Your task to perform on an android device: Show me popular games on the Play Store Image 0: 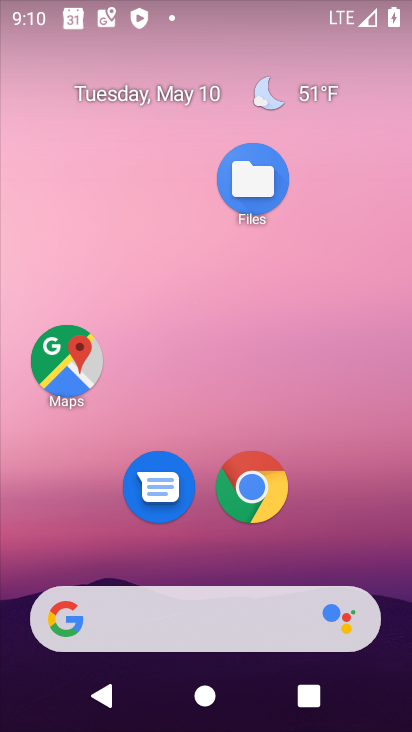
Step 0: drag from (205, 562) to (190, 173)
Your task to perform on an android device: Show me popular games on the Play Store Image 1: 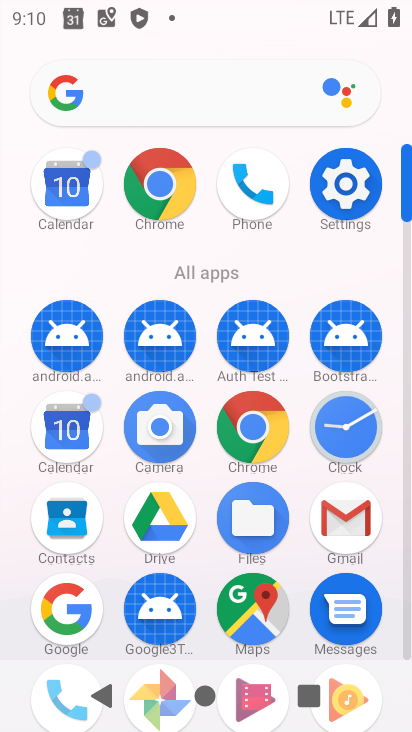
Step 1: drag from (108, 557) to (121, 220)
Your task to perform on an android device: Show me popular games on the Play Store Image 2: 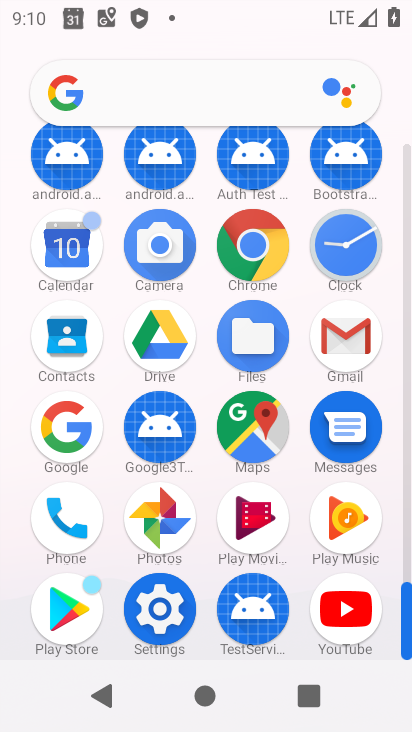
Step 2: click (65, 606)
Your task to perform on an android device: Show me popular games on the Play Store Image 3: 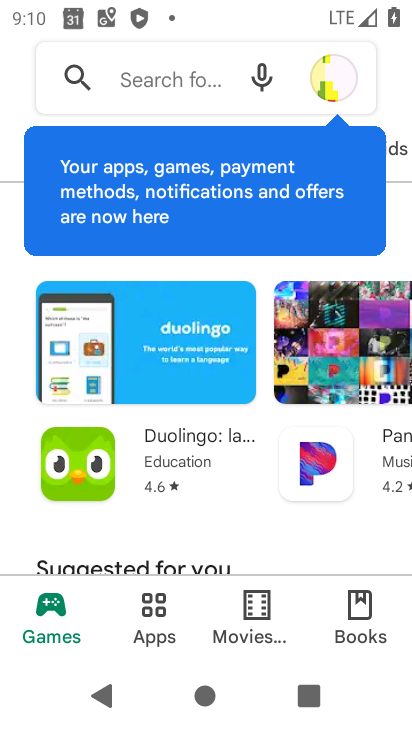
Step 3: drag from (223, 494) to (218, 25)
Your task to perform on an android device: Show me popular games on the Play Store Image 4: 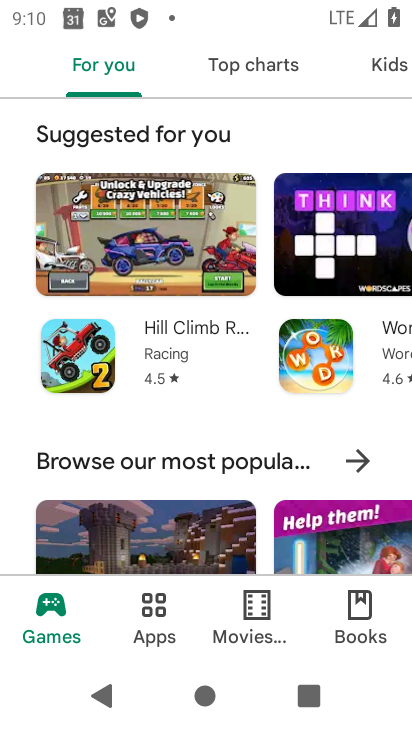
Step 4: drag from (217, 423) to (198, 273)
Your task to perform on an android device: Show me popular games on the Play Store Image 5: 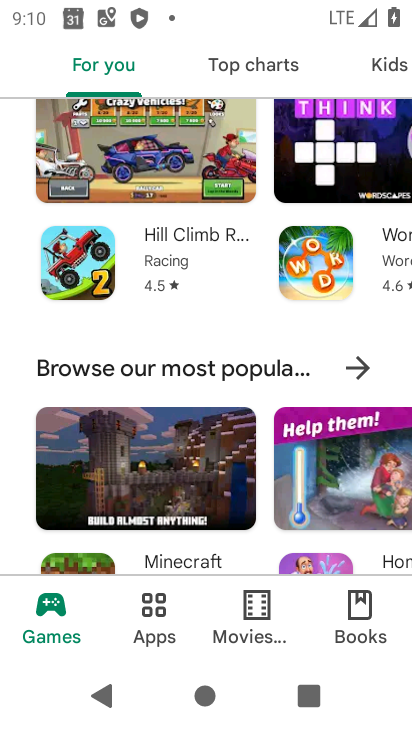
Step 5: click (357, 366)
Your task to perform on an android device: Show me popular games on the Play Store Image 6: 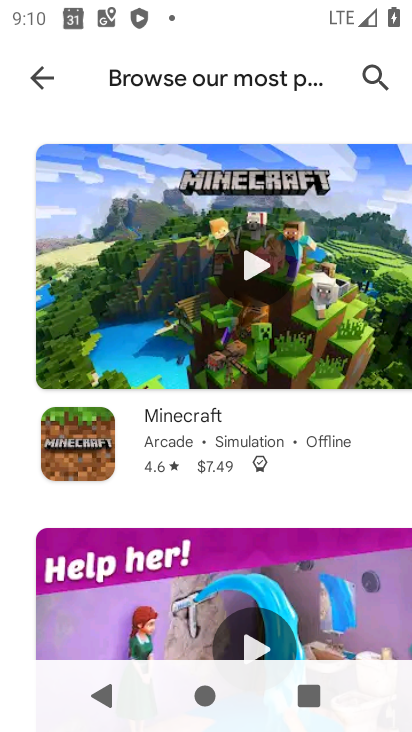
Step 6: task complete